Your task to perform on an android device: Open Youtube and go to the subscriptions tab Image 0: 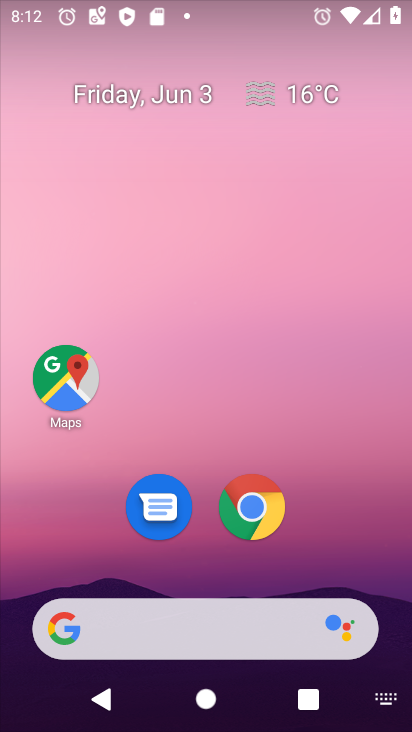
Step 0: drag from (358, 536) to (234, 7)
Your task to perform on an android device: Open Youtube and go to the subscriptions tab Image 1: 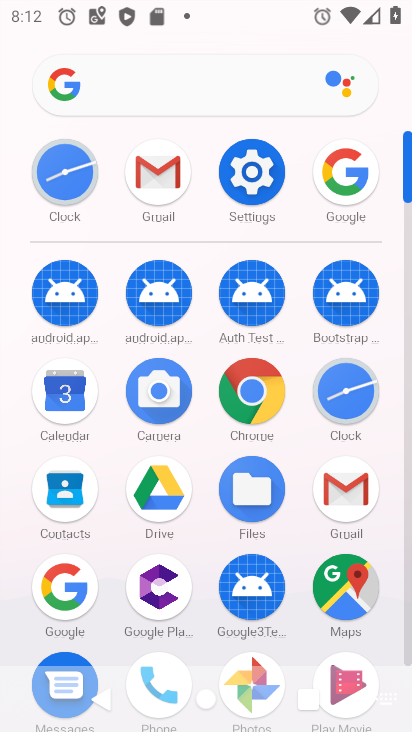
Step 1: drag from (303, 592) to (230, 108)
Your task to perform on an android device: Open Youtube and go to the subscriptions tab Image 2: 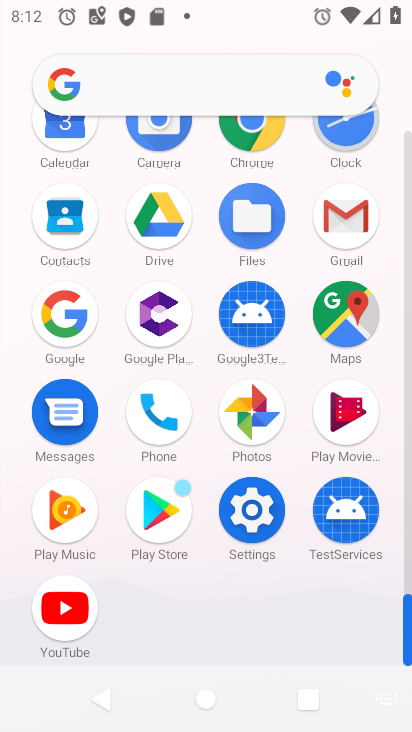
Step 2: click (63, 609)
Your task to perform on an android device: Open Youtube and go to the subscriptions tab Image 3: 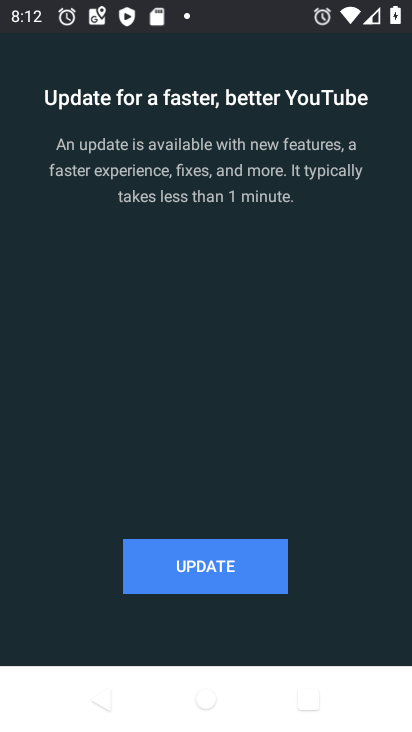
Step 3: click (260, 563)
Your task to perform on an android device: Open Youtube and go to the subscriptions tab Image 4: 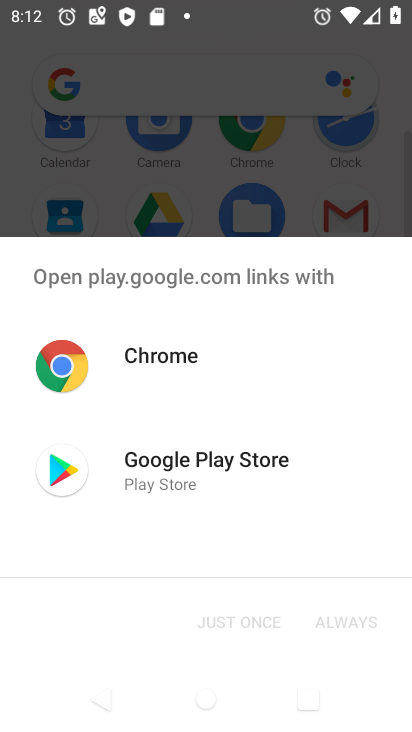
Step 4: click (185, 455)
Your task to perform on an android device: Open Youtube and go to the subscriptions tab Image 5: 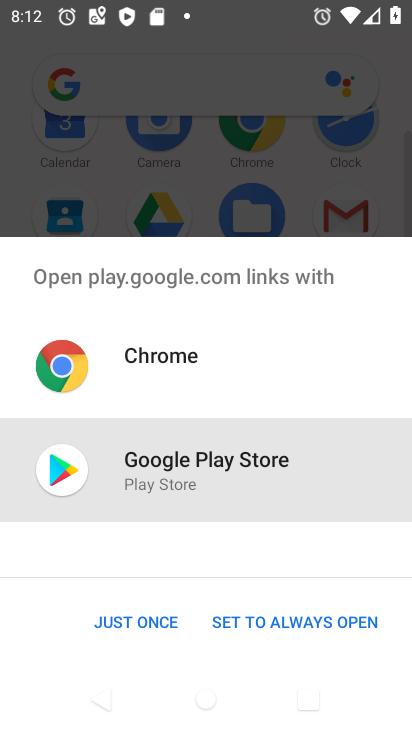
Step 5: click (140, 628)
Your task to perform on an android device: Open Youtube and go to the subscriptions tab Image 6: 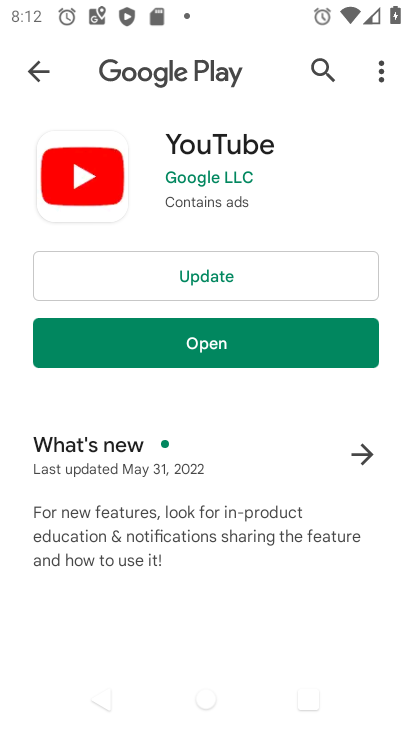
Step 6: click (222, 280)
Your task to perform on an android device: Open Youtube and go to the subscriptions tab Image 7: 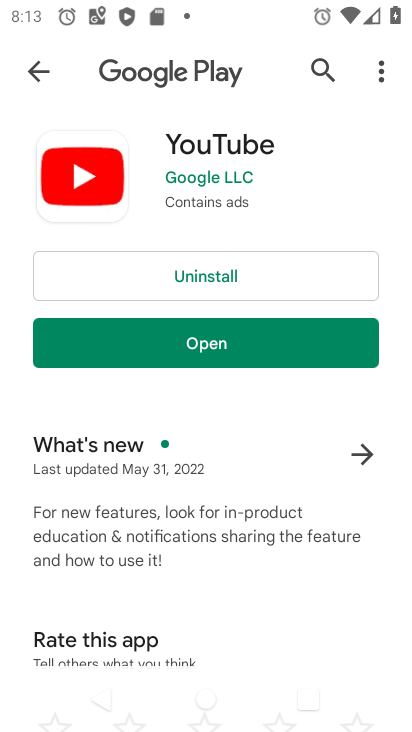
Step 7: click (252, 339)
Your task to perform on an android device: Open Youtube and go to the subscriptions tab Image 8: 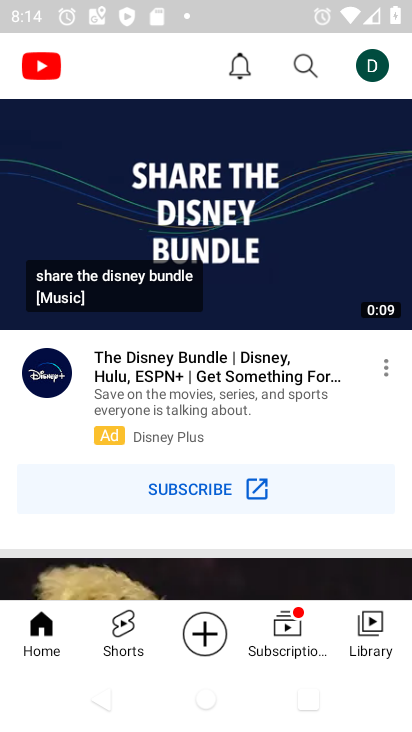
Step 8: click (300, 630)
Your task to perform on an android device: Open Youtube and go to the subscriptions tab Image 9: 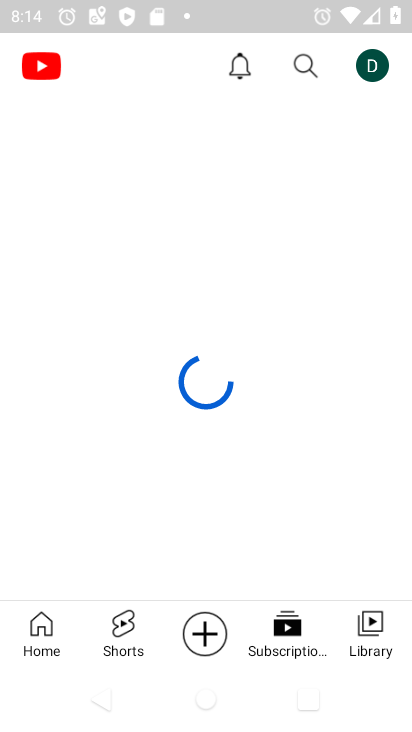
Step 9: task complete